Your task to perform on an android device: Is it going to rain today? Image 0: 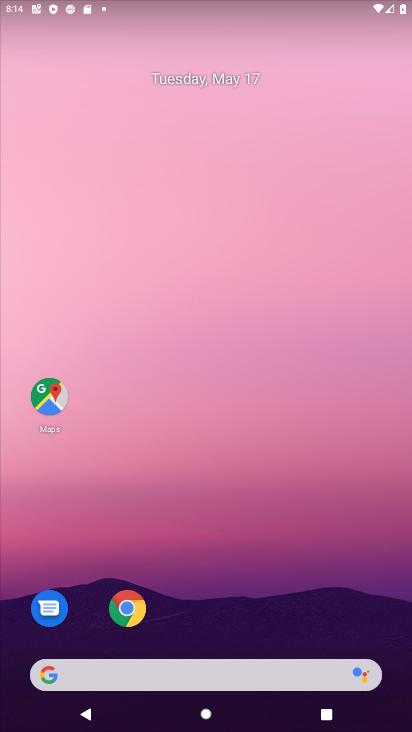
Step 0: click (246, 669)
Your task to perform on an android device: Is it going to rain today? Image 1: 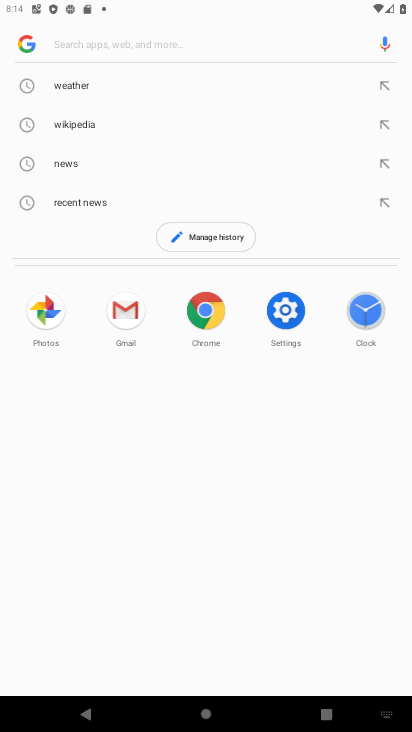
Step 1: click (82, 80)
Your task to perform on an android device: Is it going to rain today? Image 2: 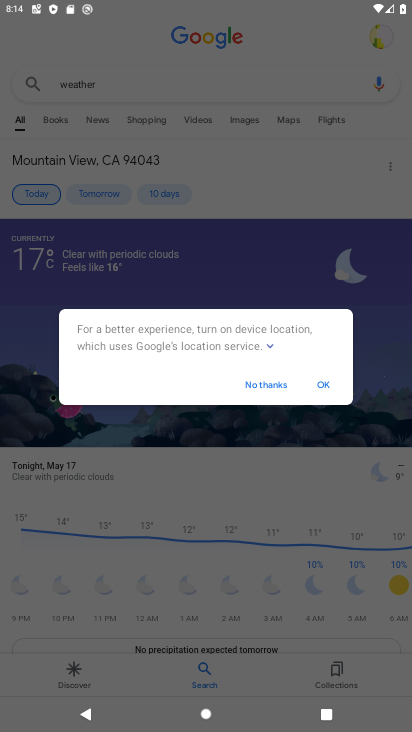
Step 2: task complete